Your task to perform on an android device: turn on javascript in the chrome app Image 0: 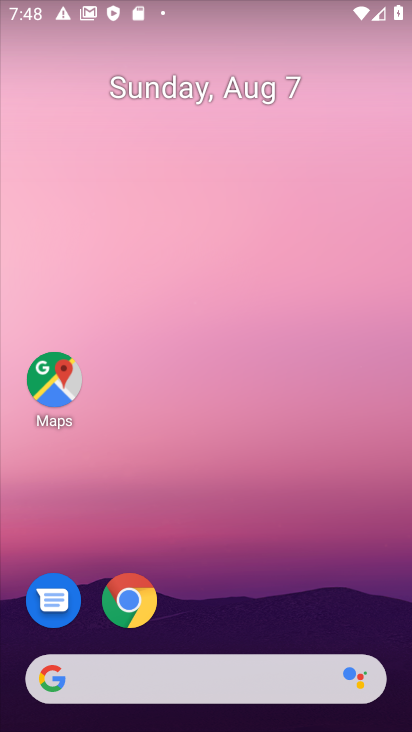
Step 0: click (123, 606)
Your task to perform on an android device: turn on javascript in the chrome app Image 1: 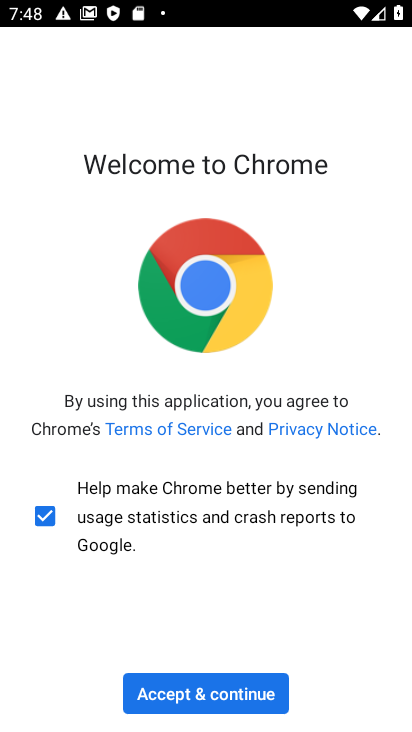
Step 1: click (215, 696)
Your task to perform on an android device: turn on javascript in the chrome app Image 2: 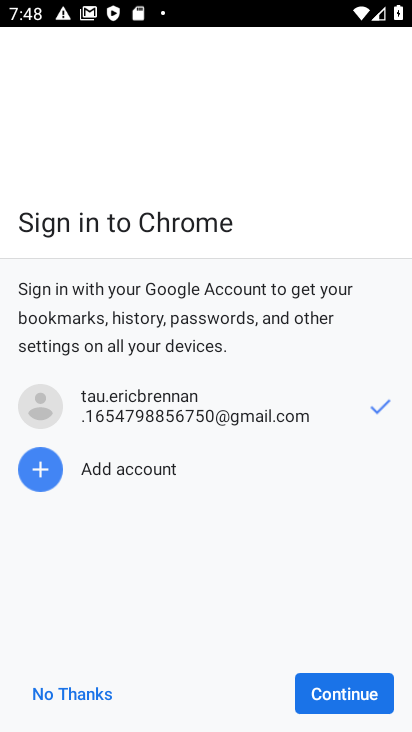
Step 2: click (336, 689)
Your task to perform on an android device: turn on javascript in the chrome app Image 3: 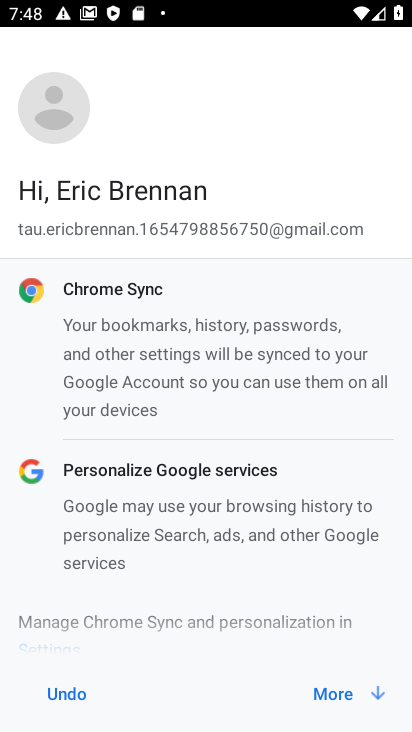
Step 3: click (336, 689)
Your task to perform on an android device: turn on javascript in the chrome app Image 4: 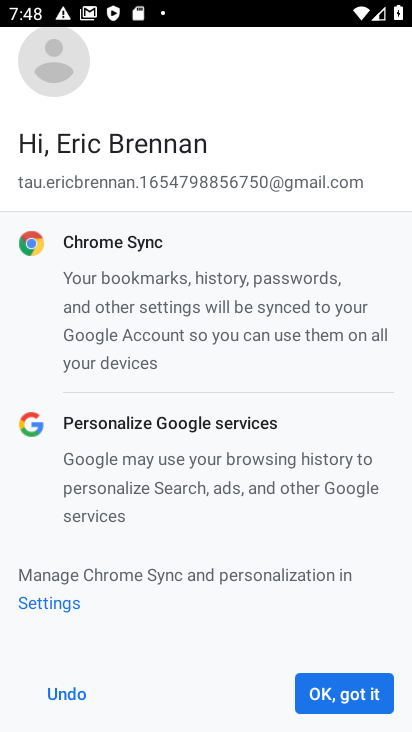
Step 4: click (336, 689)
Your task to perform on an android device: turn on javascript in the chrome app Image 5: 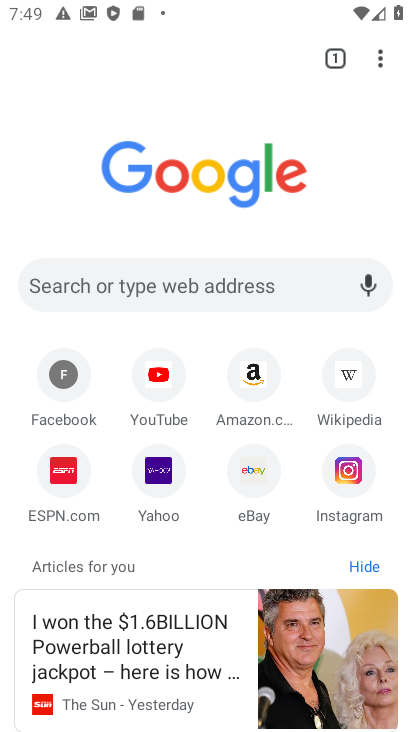
Step 5: click (379, 53)
Your task to perform on an android device: turn on javascript in the chrome app Image 6: 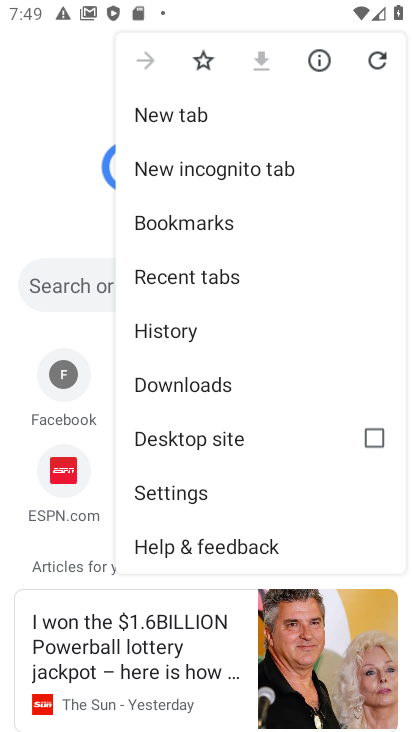
Step 6: click (182, 487)
Your task to perform on an android device: turn on javascript in the chrome app Image 7: 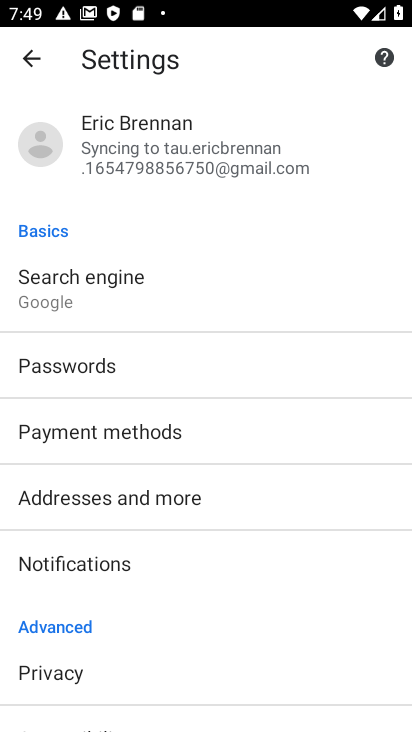
Step 7: drag from (111, 563) to (169, 282)
Your task to perform on an android device: turn on javascript in the chrome app Image 8: 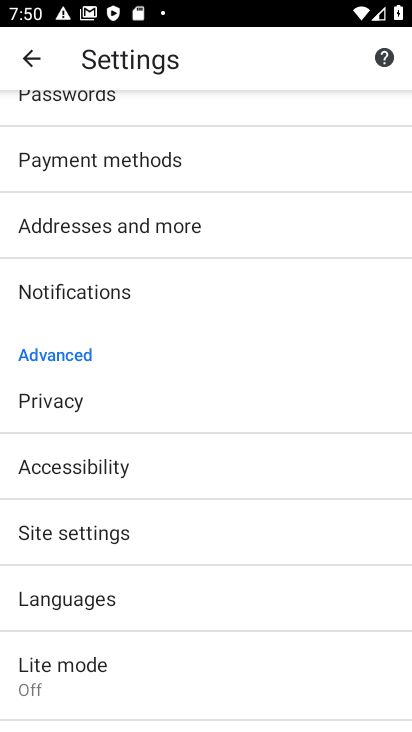
Step 8: click (110, 532)
Your task to perform on an android device: turn on javascript in the chrome app Image 9: 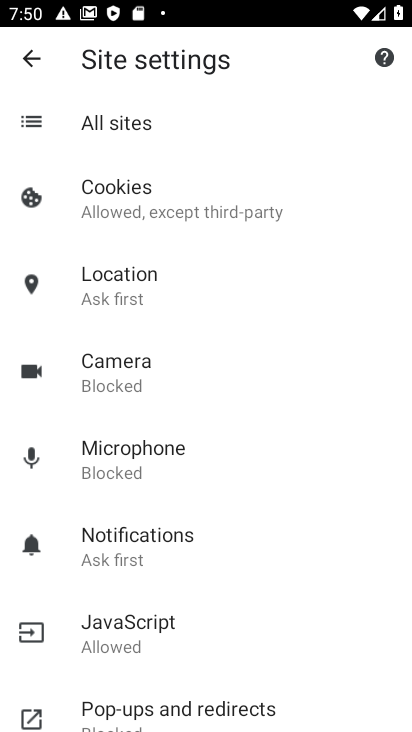
Step 9: click (138, 627)
Your task to perform on an android device: turn on javascript in the chrome app Image 10: 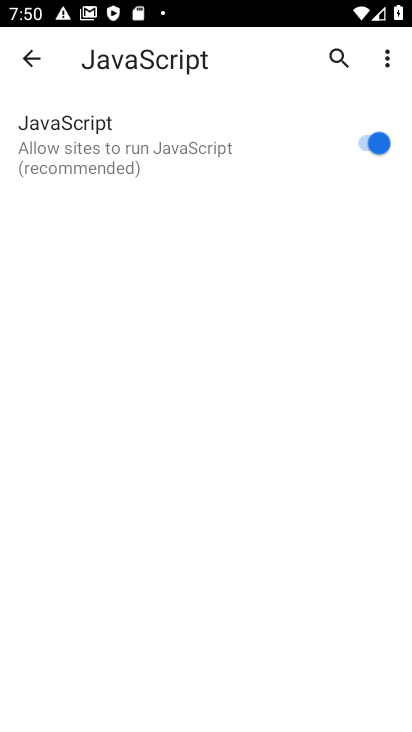
Step 10: task complete